Your task to perform on an android device: check storage Image 0: 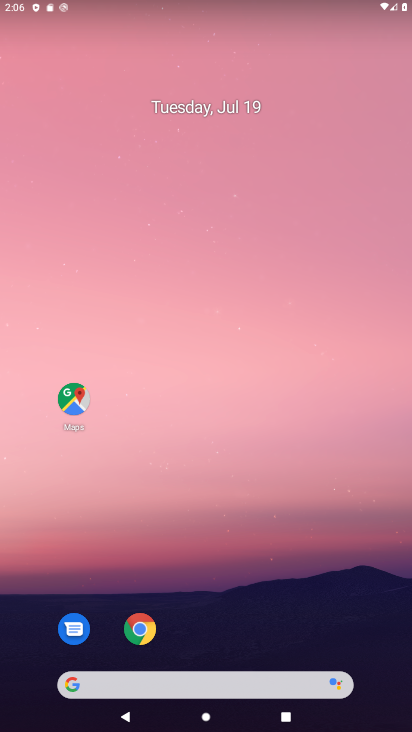
Step 0: drag from (189, 649) to (238, 248)
Your task to perform on an android device: check storage Image 1: 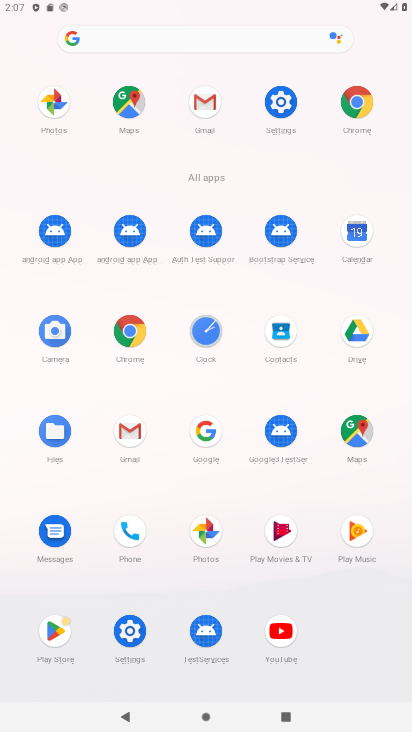
Step 1: click (136, 638)
Your task to perform on an android device: check storage Image 2: 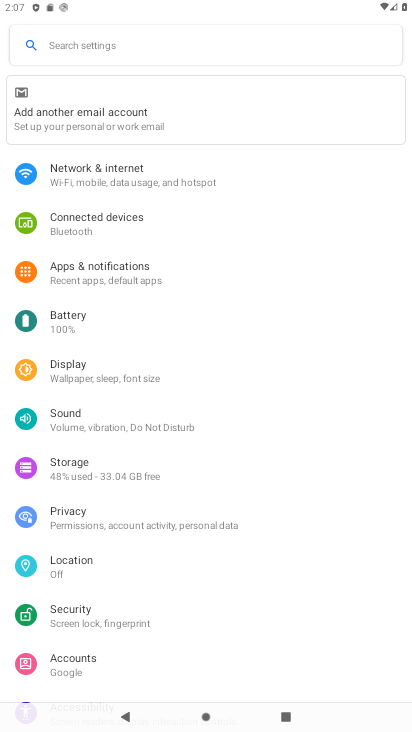
Step 2: drag from (105, 663) to (169, 388)
Your task to perform on an android device: check storage Image 3: 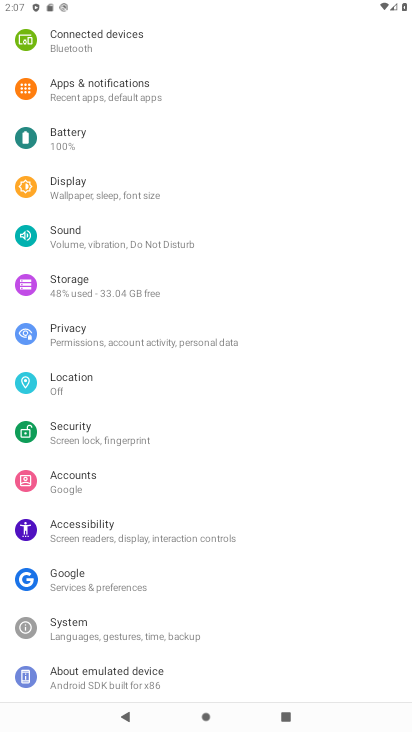
Step 3: click (110, 284)
Your task to perform on an android device: check storage Image 4: 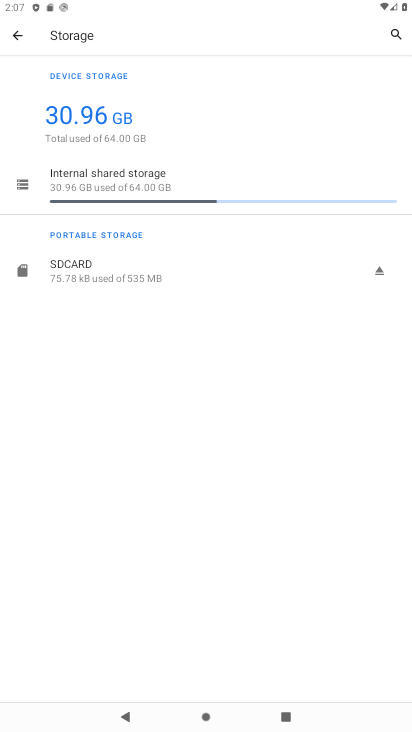
Step 4: task complete